Your task to perform on an android device: When is my next meeting? Image 0: 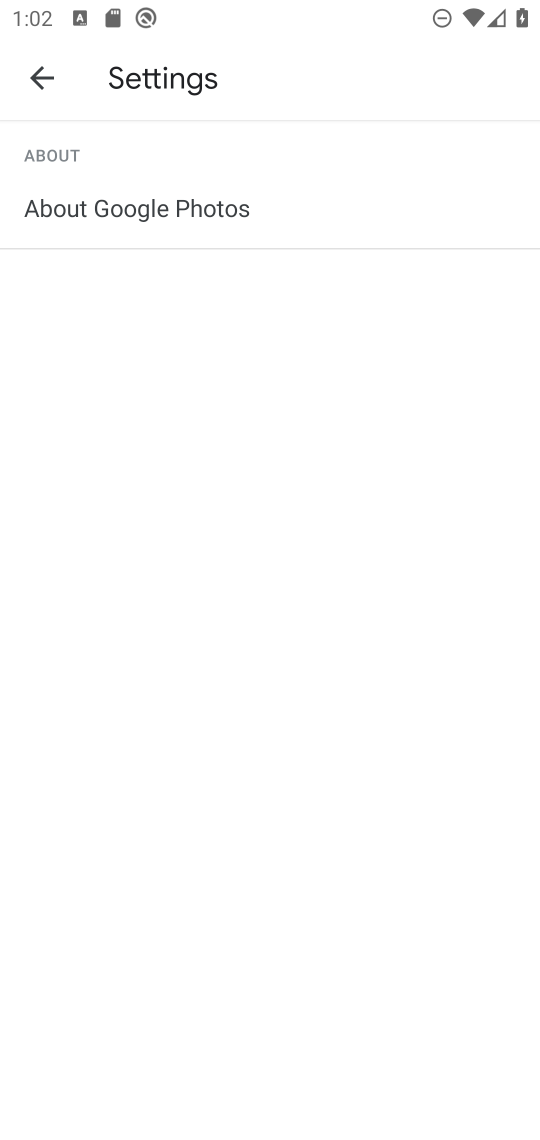
Step 0: press home button
Your task to perform on an android device: When is my next meeting? Image 1: 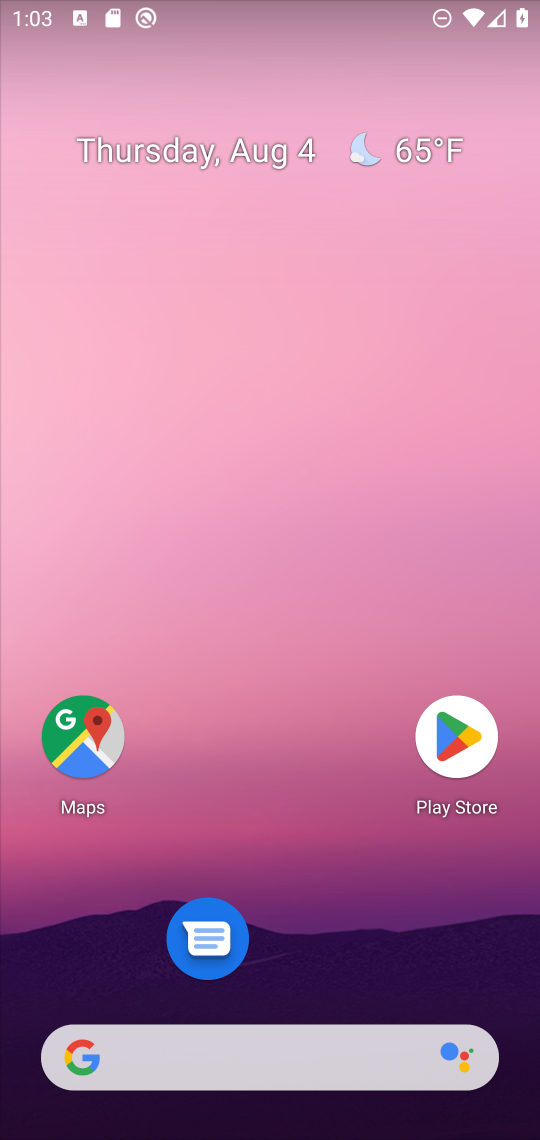
Step 1: drag from (353, 765) to (397, 66)
Your task to perform on an android device: When is my next meeting? Image 2: 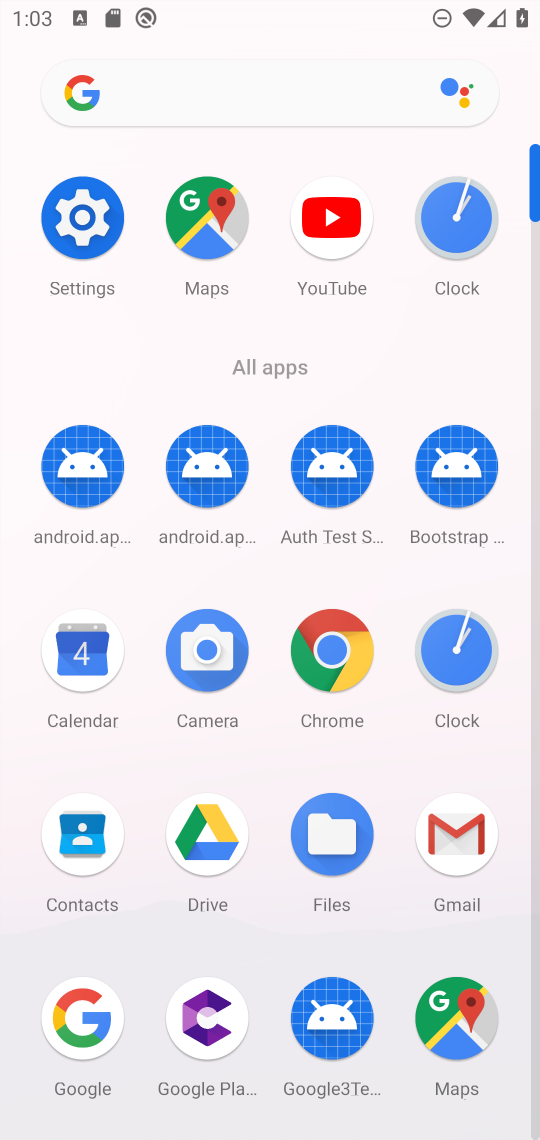
Step 2: click (67, 647)
Your task to perform on an android device: When is my next meeting? Image 3: 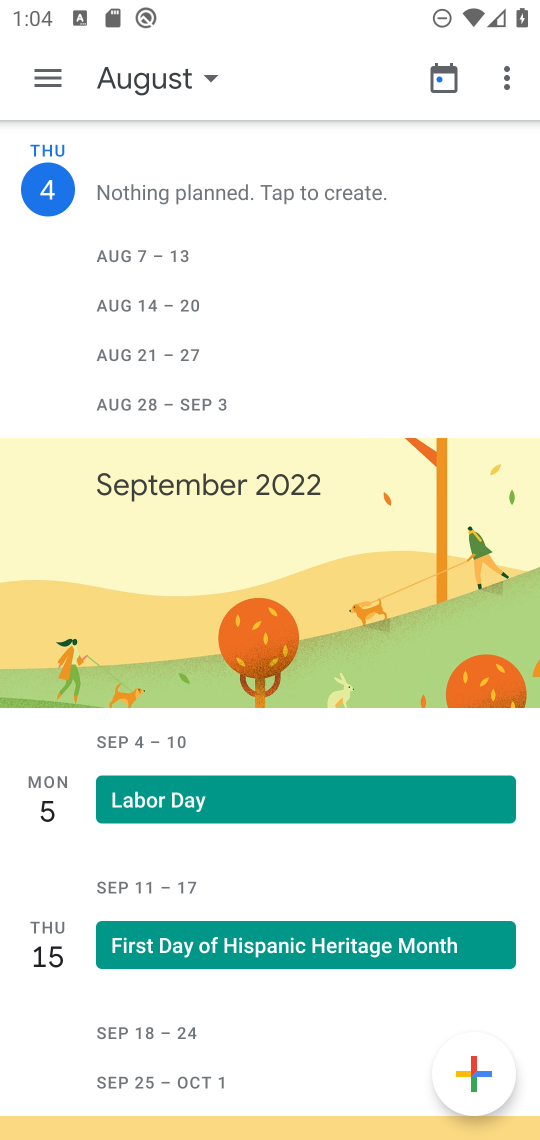
Step 3: click (69, 66)
Your task to perform on an android device: When is my next meeting? Image 4: 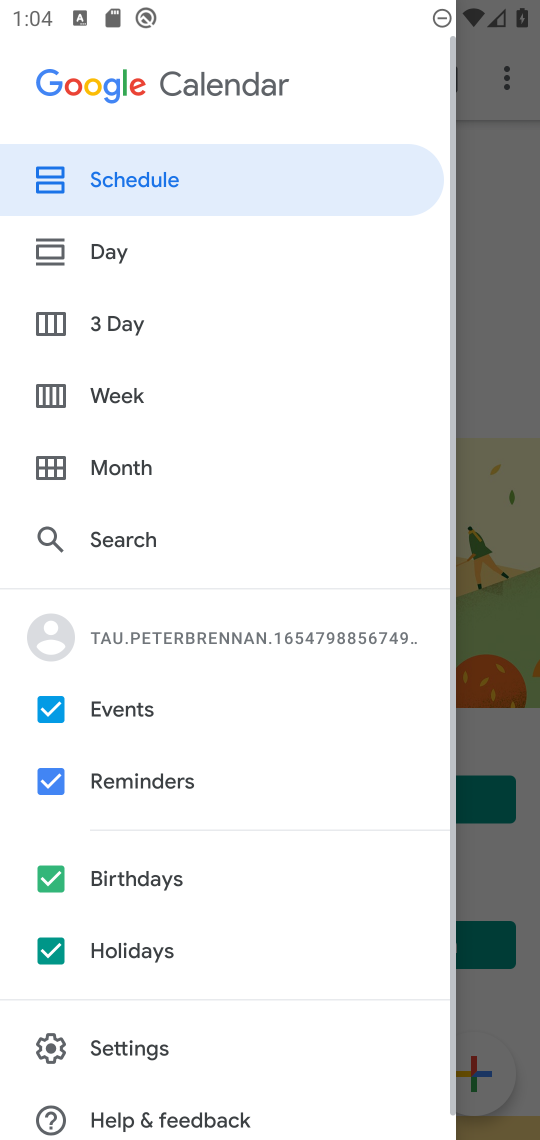
Step 4: click (164, 207)
Your task to perform on an android device: When is my next meeting? Image 5: 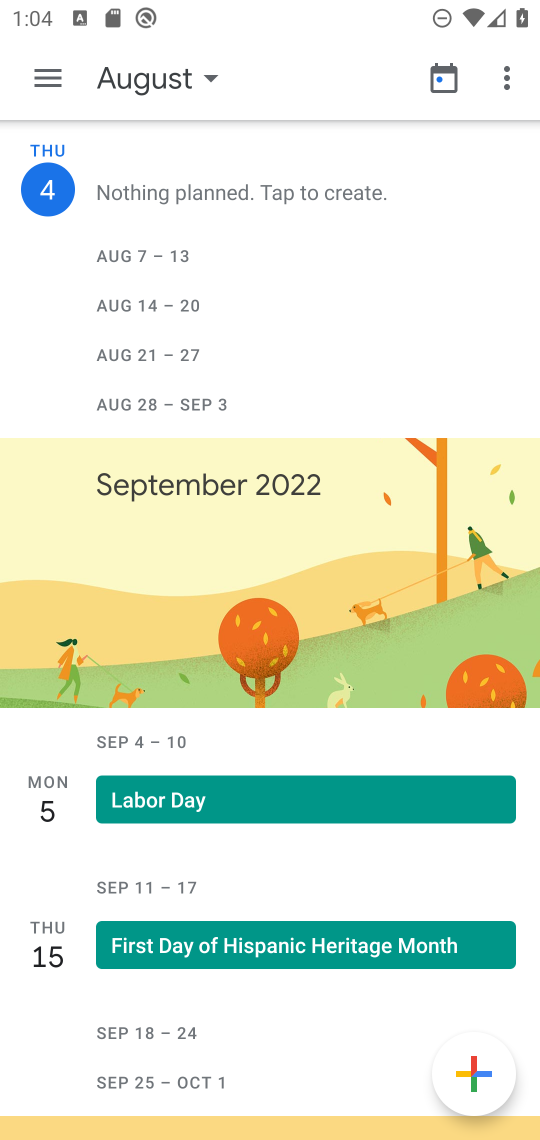
Step 5: task complete